Your task to perform on an android device: Open maps Image 0: 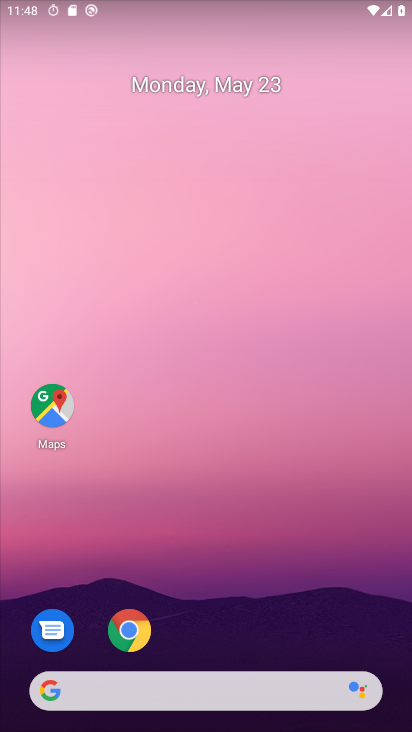
Step 0: click (43, 403)
Your task to perform on an android device: Open maps Image 1: 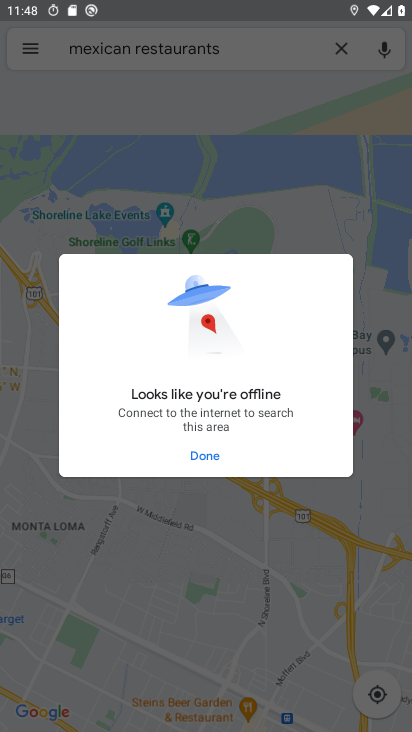
Step 1: click (206, 456)
Your task to perform on an android device: Open maps Image 2: 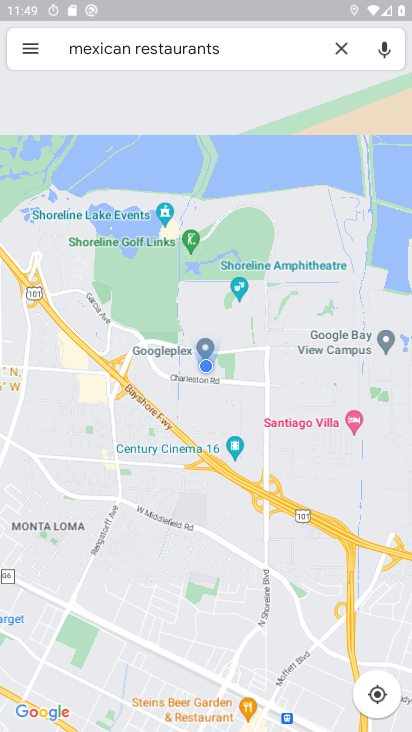
Step 2: task complete